Your task to perform on an android device: View the shopping cart on target. Add asus rog to the cart on target, then select checkout. Image 0: 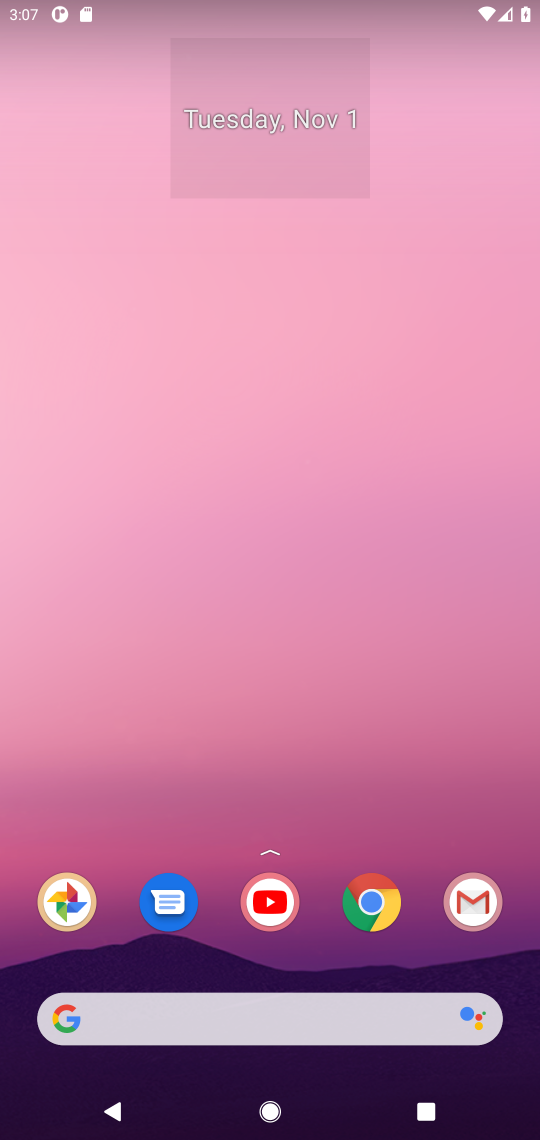
Step 0: click (375, 903)
Your task to perform on an android device: View the shopping cart on target. Add asus rog to the cart on target, then select checkout. Image 1: 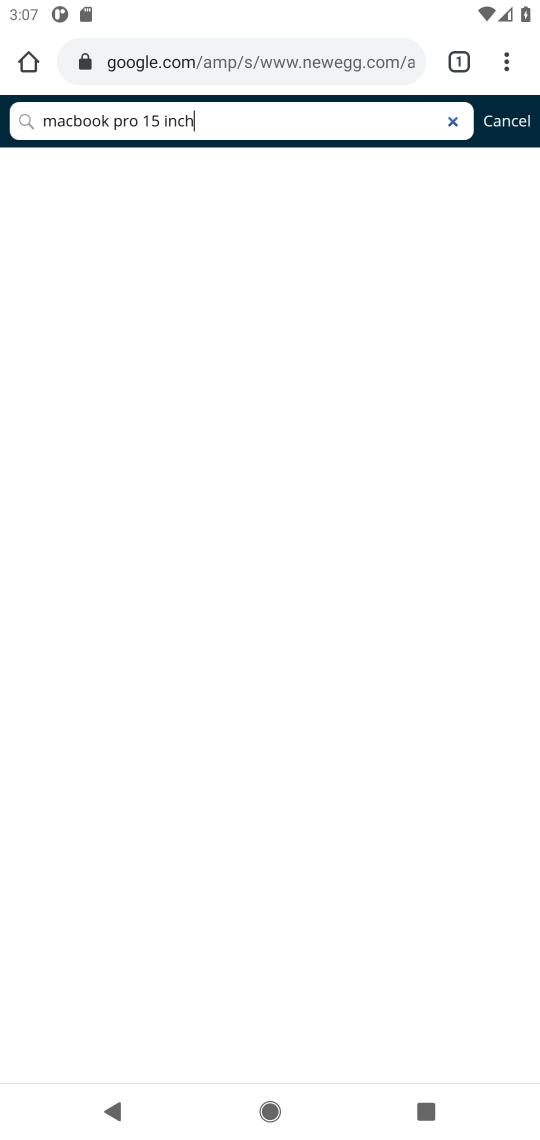
Step 1: click (267, 62)
Your task to perform on an android device: View the shopping cart on target. Add asus rog to the cart on target, then select checkout. Image 2: 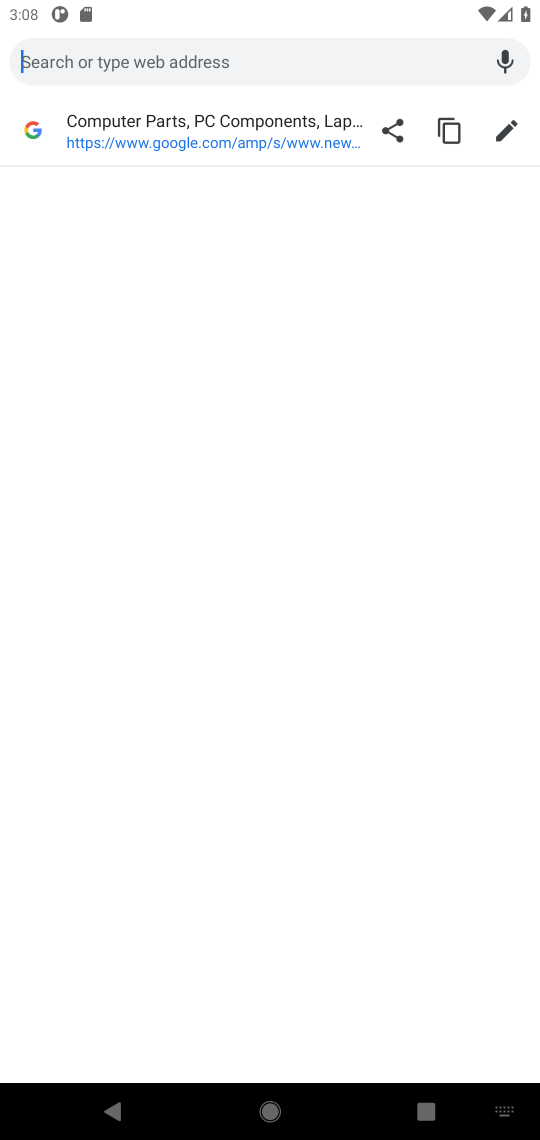
Step 2: type "target"
Your task to perform on an android device: View the shopping cart on target. Add asus rog to the cart on target, then select checkout. Image 3: 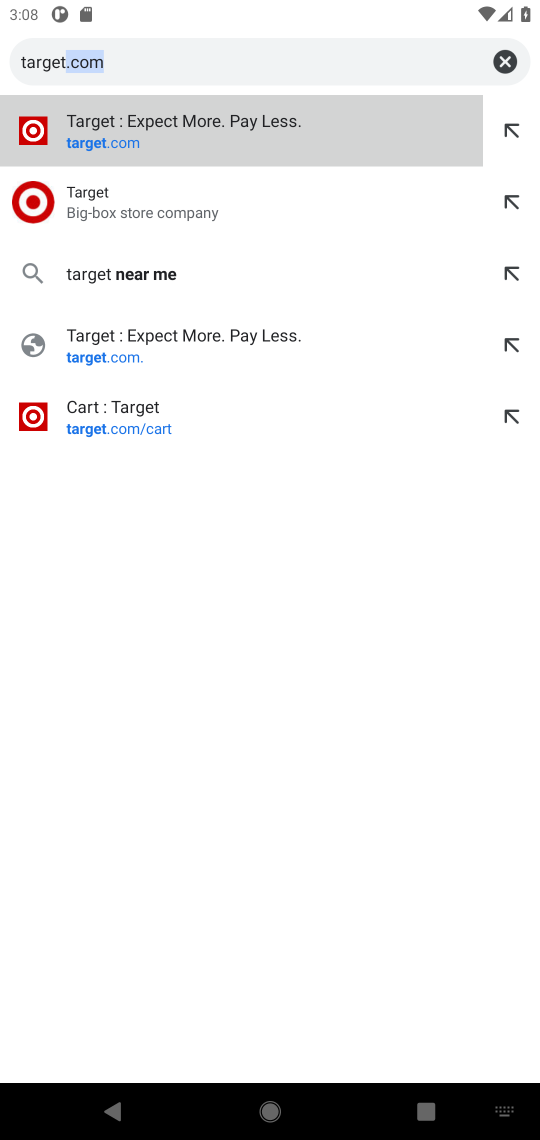
Step 3: click (106, 206)
Your task to perform on an android device: View the shopping cart on target. Add asus rog to the cart on target, then select checkout. Image 4: 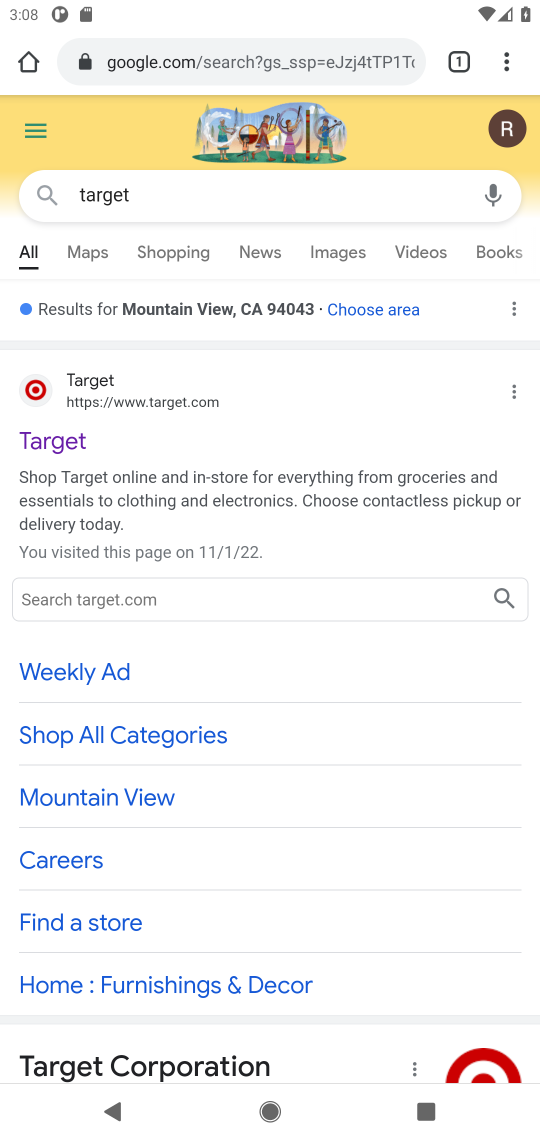
Step 4: click (67, 441)
Your task to perform on an android device: View the shopping cart on target. Add asus rog to the cart on target, then select checkout. Image 5: 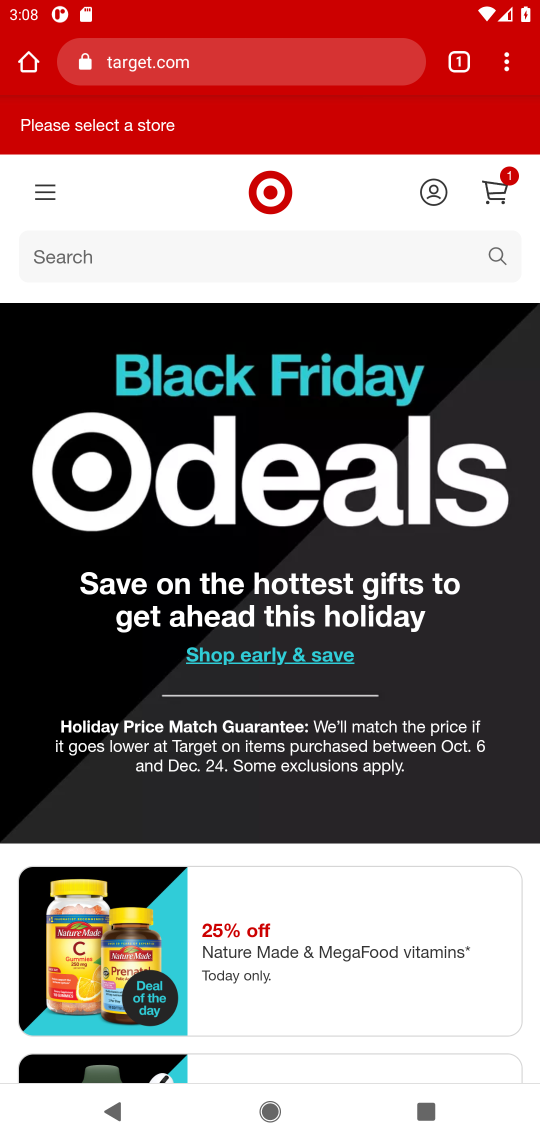
Step 5: click (497, 192)
Your task to perform on an android device: View the shopping cart on target. Add asus rog to the cart on target, then select checkout. Image 6: 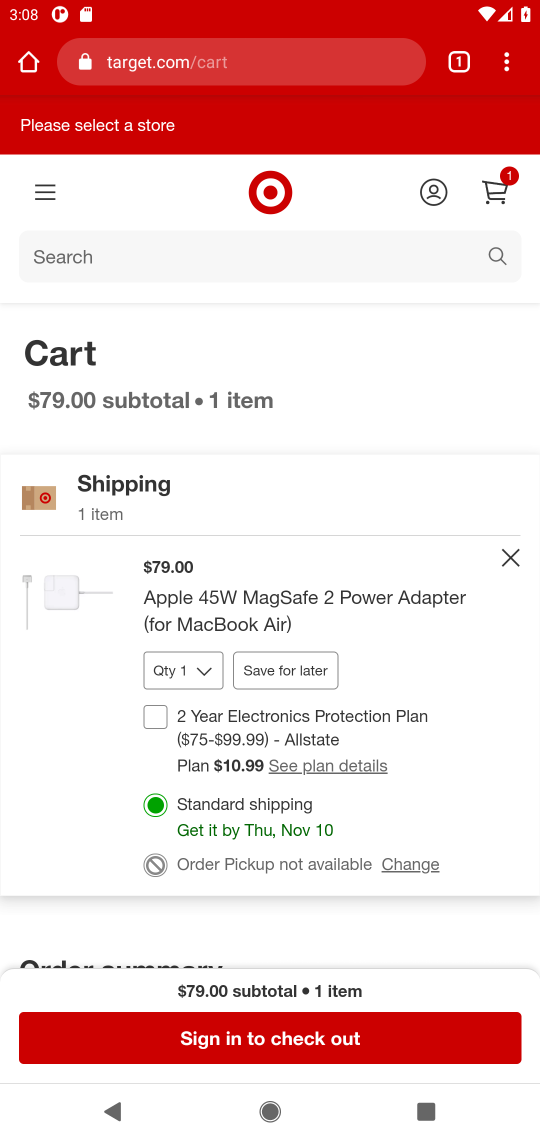
Step 6: click (263, 255)
Your task to perform on an android device: View the shopping cart on target. Add asus rog to the cart on target, then select checkout. Image 7: 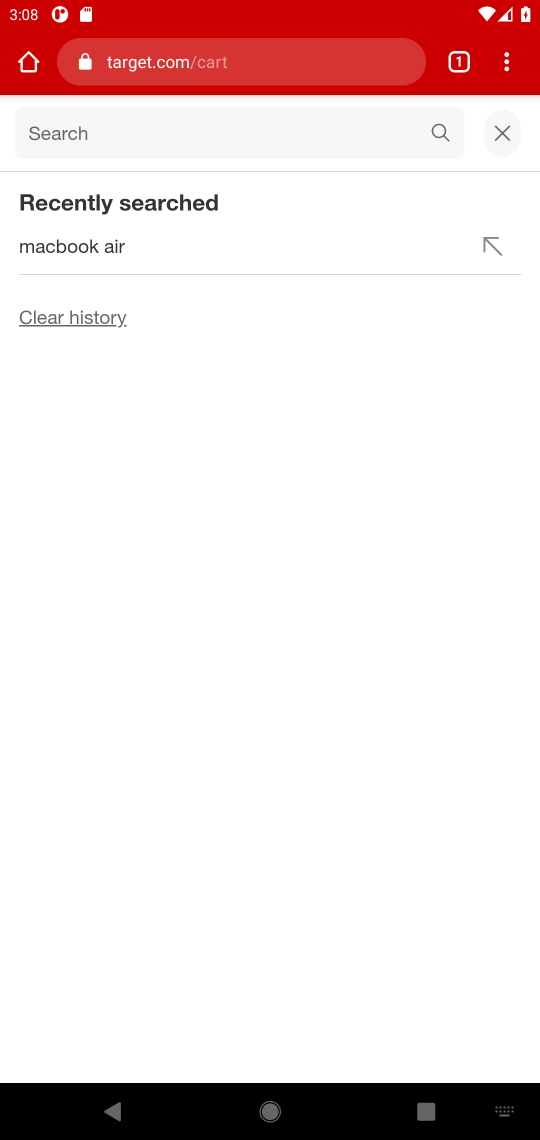
Step 7: type "asus rog"
Your task to perform on an android device: View the shopping cart on target. Add asus rog to the cart on target, then select checkout. Image 8: 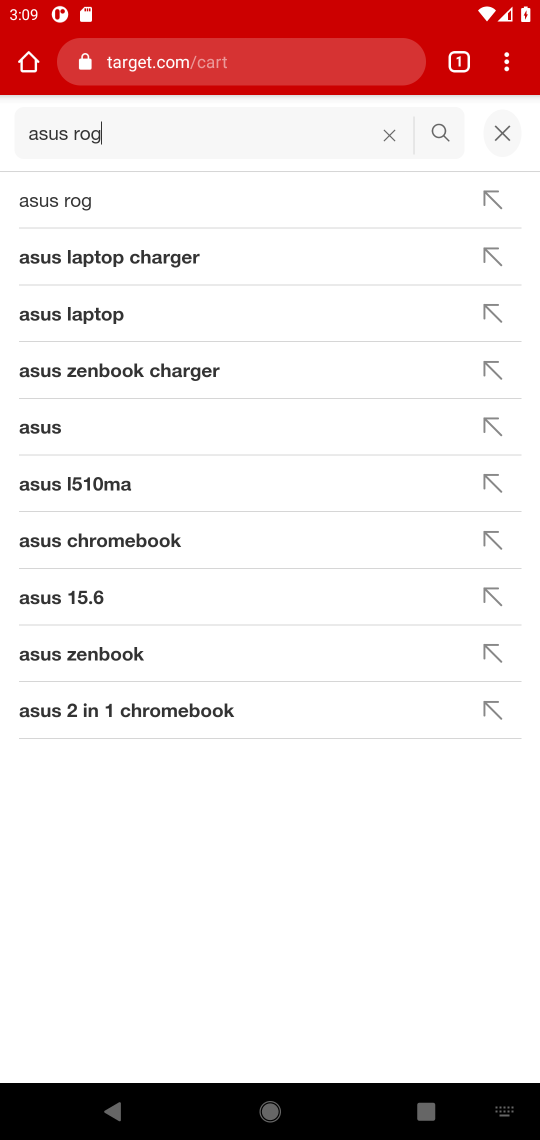
Step 8: click (65, 200)
Your task to perform on an android device: View the shopping cart on target. Add asus rog to the cart on target, then select checkout. Image 9: 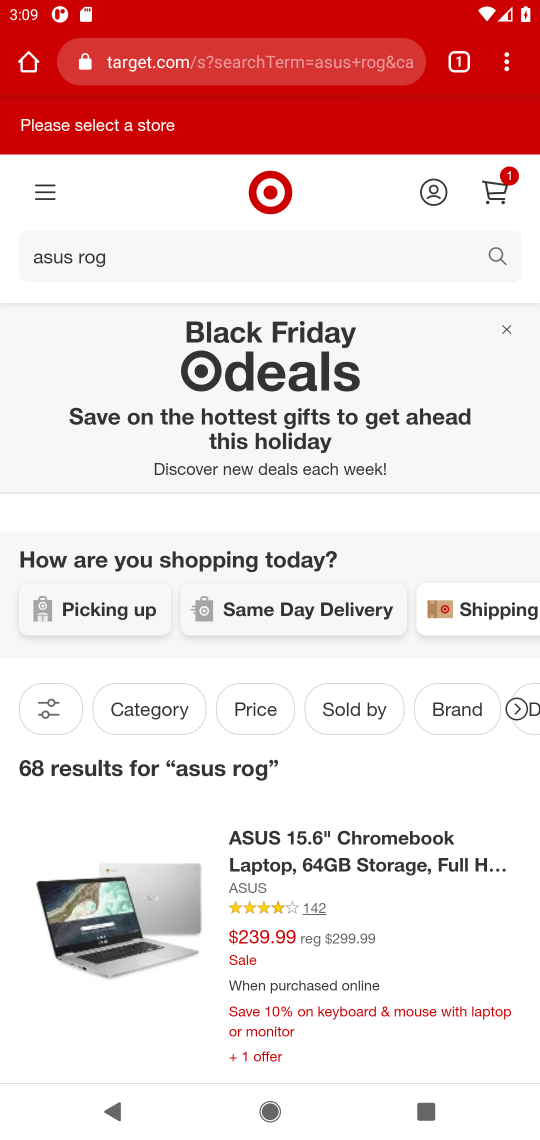
Step 9: click (325, 852)
Your task to perform on an android device: View the shopping cart on target. Add asus rog to the cart on target, then select checkout. Image 10: 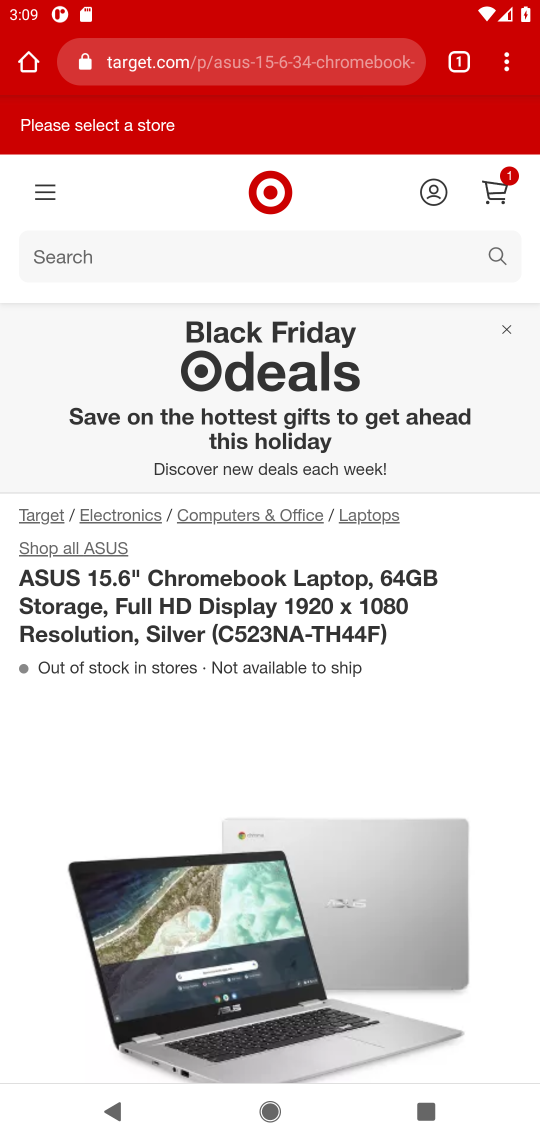
Step 10: drag from (288, 718) to (260, 232)
Your task to perform on an android device: View the shopping cart on target. Add asus rog to the cart on target, then select checkout. Image 11: 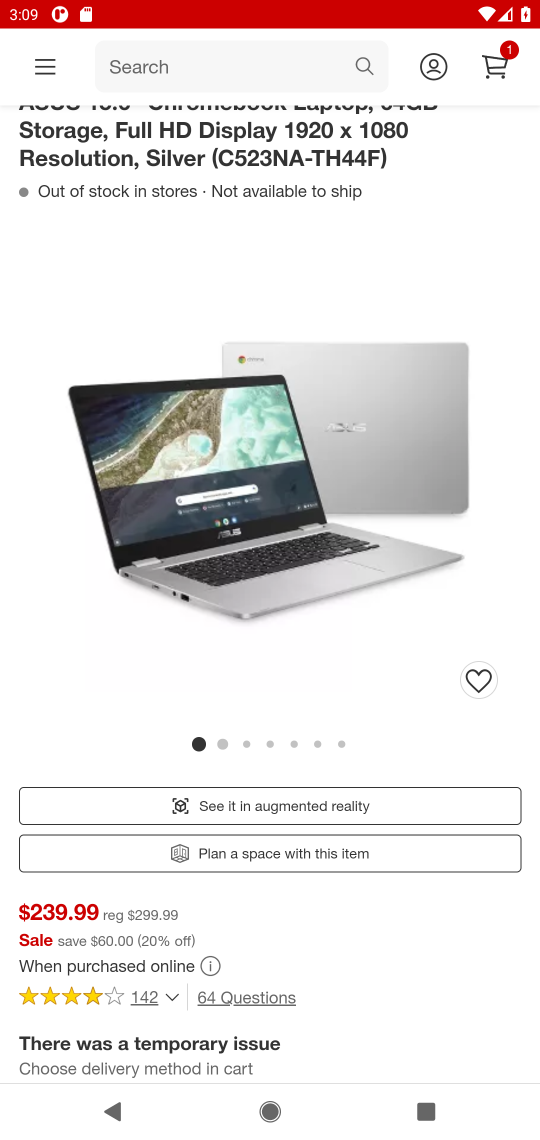
Step 11: drag from (254, 929) to (262, 651)
Your task to perform on an android device: View the shopping cart on target. Add asus rog to the cart on target, then select checkout. Image 12: 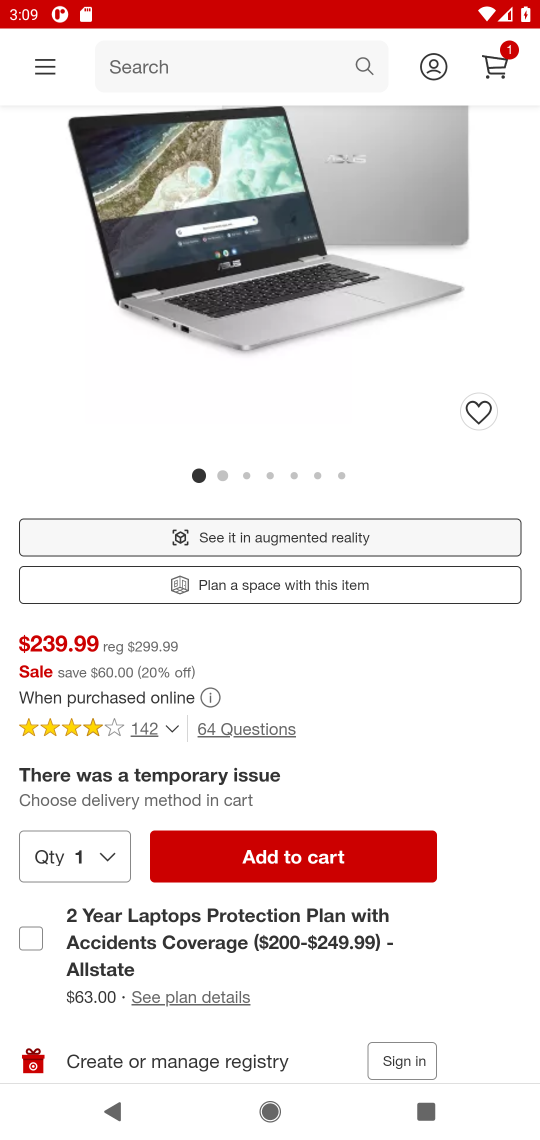
Step 12: click (290, 852)
Your task to perform on an android device: View the shopping cart on target. Add asus rog to the cart on target, then select checkout. Image 13: 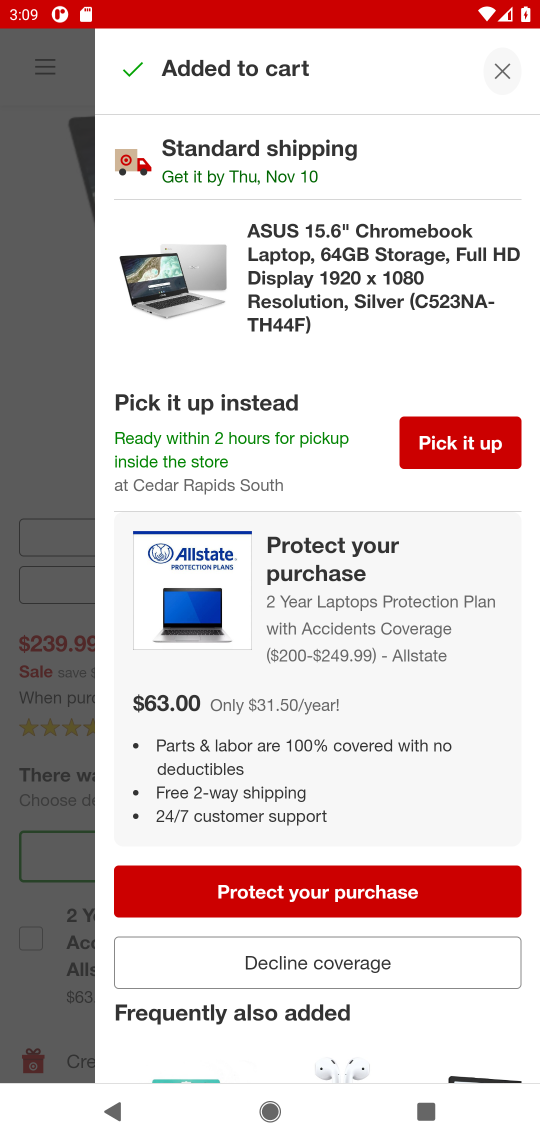
Step 13: click (300, 959)
Your task to perform on an android device: View the shopping cart on target. Add asus rog to the cart on target, then select checkout. Image 14: 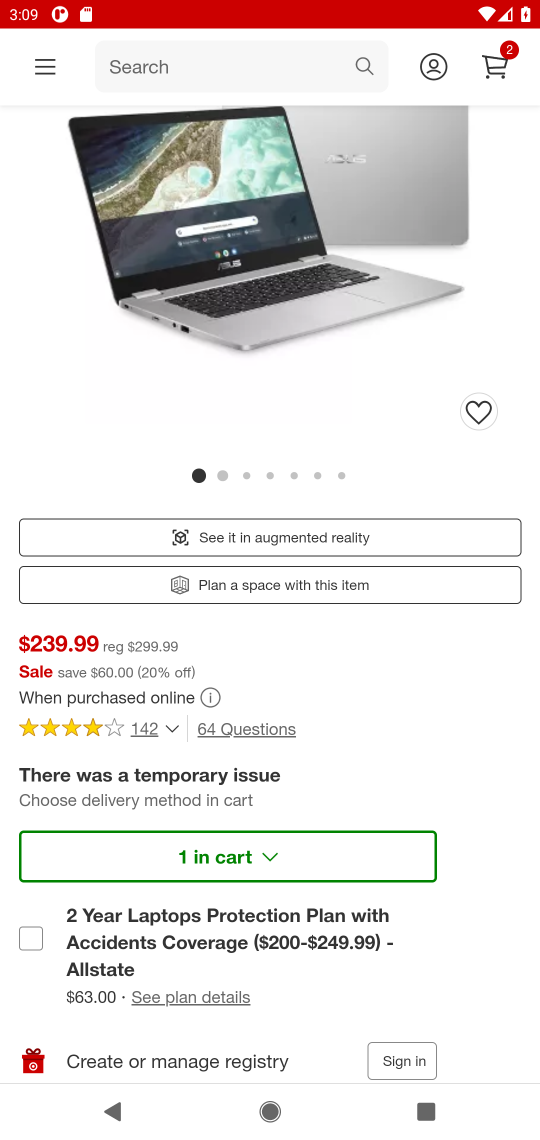
Step 14: click (504, 64)
Your task to perform on an android device: View the shopping cart on target. Add asus rog to the cart on target, then select checkout. Image 15: 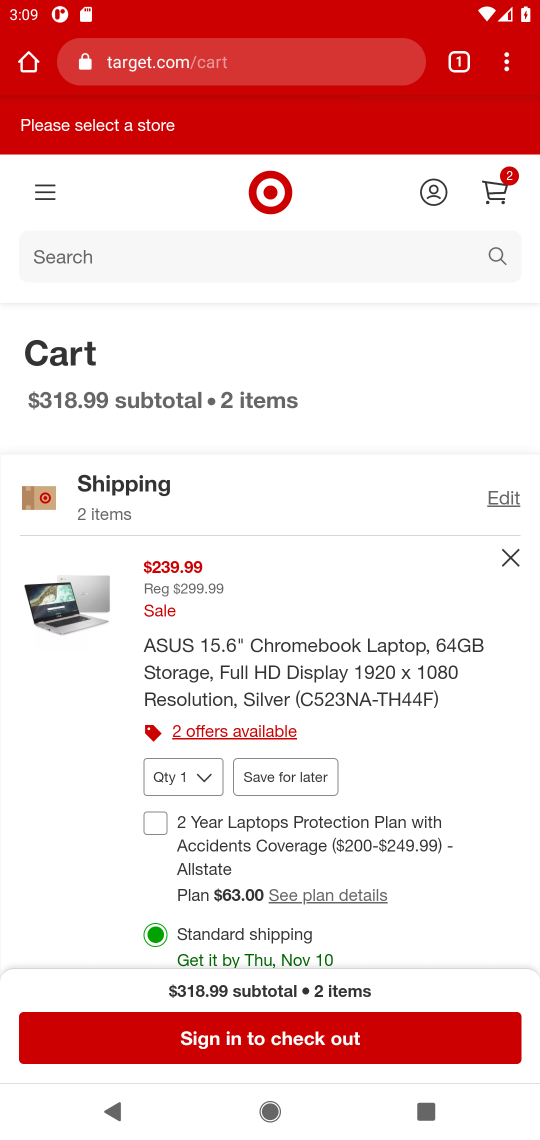
Step 15: click (231, 1036)
Your task to perform on an android device: View the shopping cart on target. Add asus rog to the cart on target, then select checkout. Image 16: 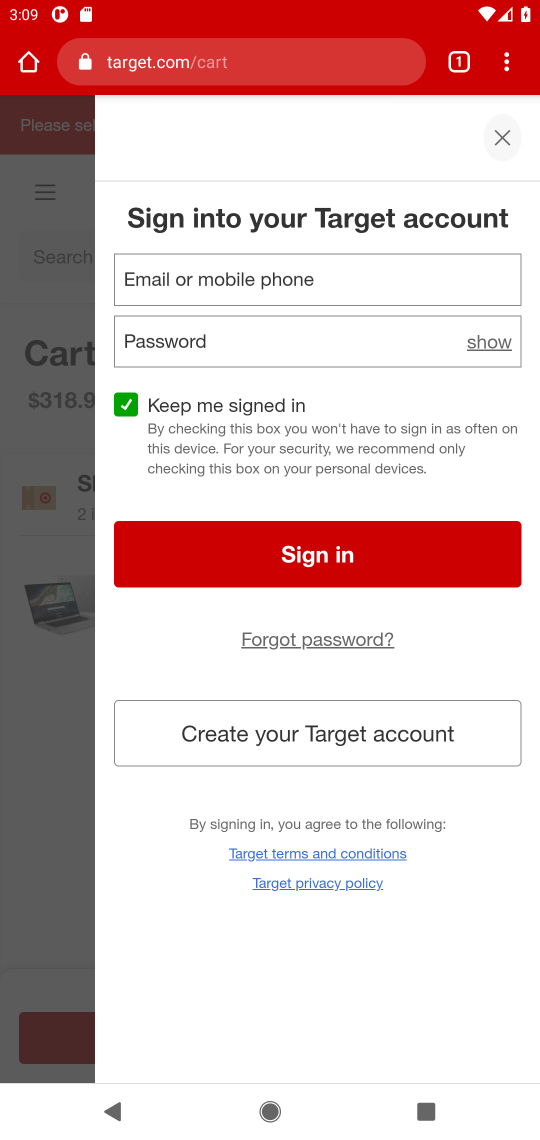
Step 16: task complete